Your task to perform on an android device: allow notifications from all sites in the chrome app Image 0: 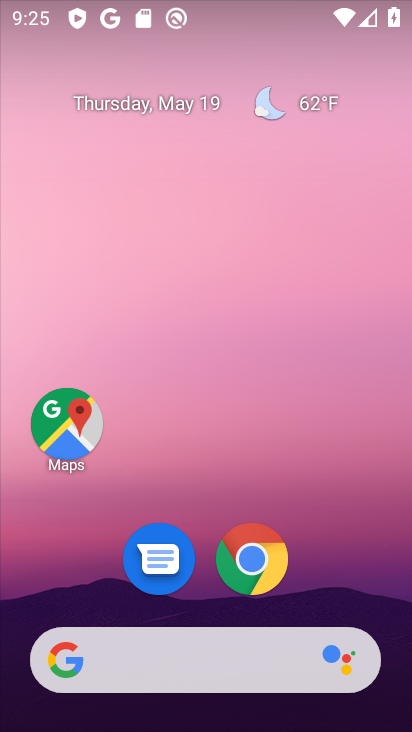
Step 0: click (258, 561)
Your task to perform on an android device: allow notifications from all sites in the chrome app Image 1: 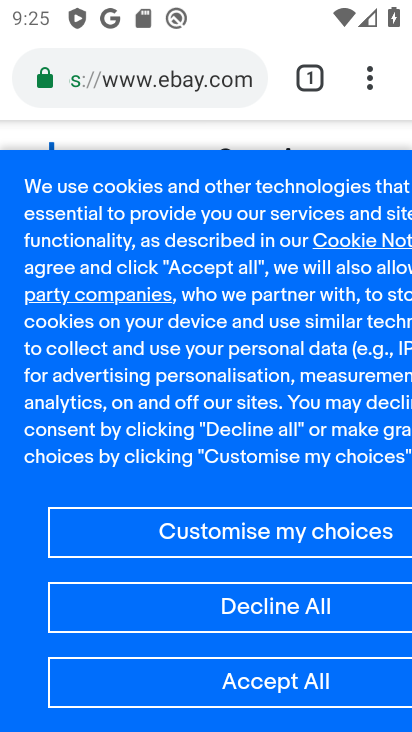
Step 1: drag from (373, 73) to (140, 624)
Your task to perform on an android device: allow notifications from all sites in the chrome app Image 2: 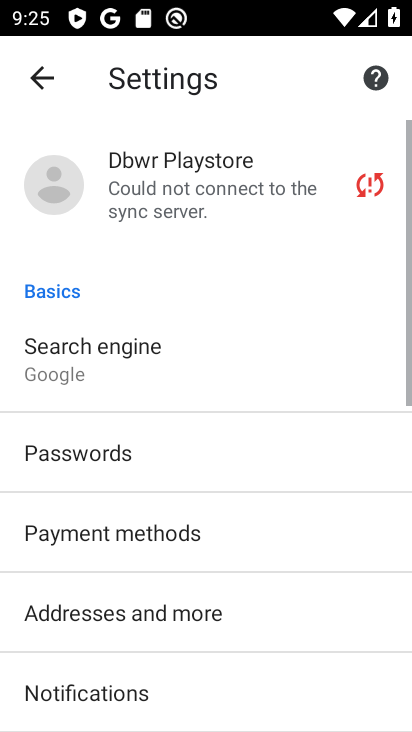
Step 2: drag from (139, 621) to (245, 131)
Your task to perform on an android device: allow notifications from all sites in the chrome app Image 3: 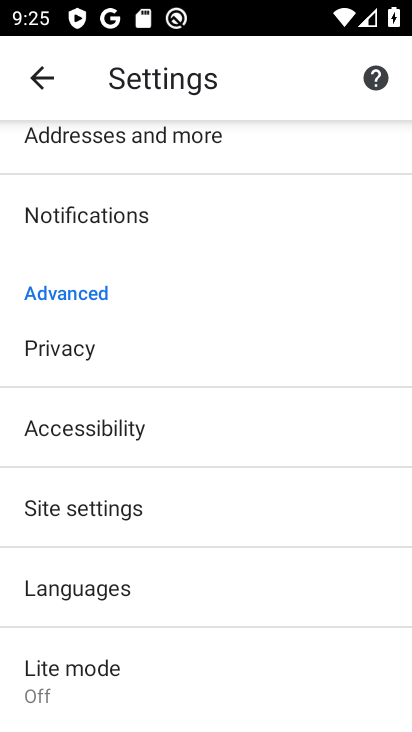
Step 3: click (170, 234)
Your task to perform on an android device: allow notifications from all sites in the chrome app Image 4: 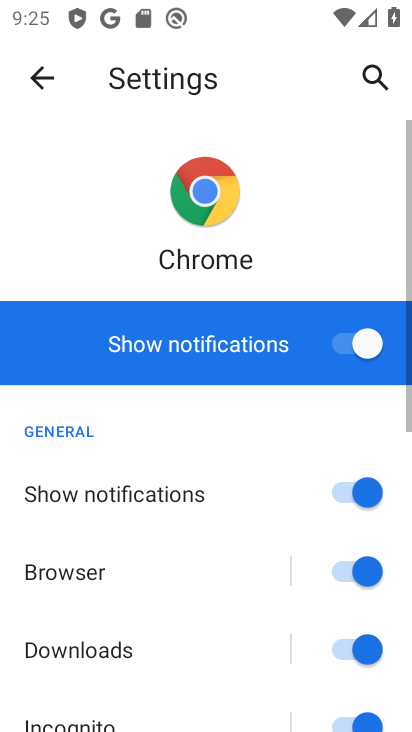
Step 4: task complete